Your task to perform on an android device: change keyboard looks Image 0: 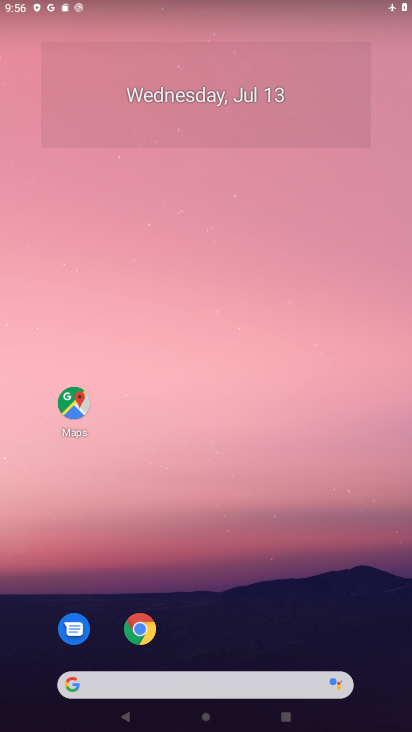
Step 0: drag from (287, 613) to (277, 209)
Your task to perform on an android device: change keyboard looks Image 1: 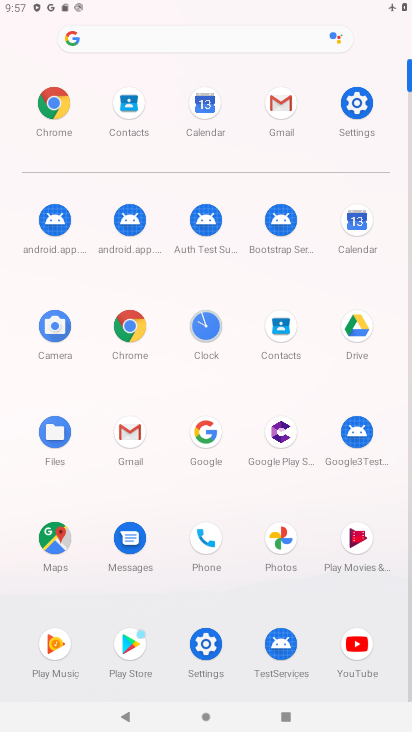
Step 1: click (205, 653)
Your task to perform on an android device: change keyboard looks Image 2: 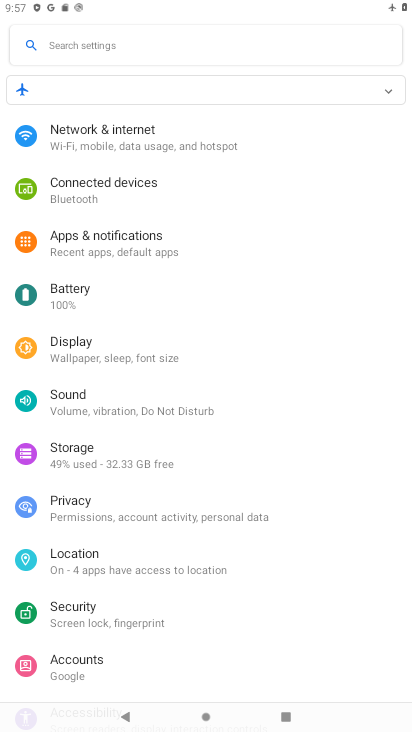
Step 2: drag from (185, 549) to (196, 352)
Your task to perform on an android device: change keyboard looks Image 3: 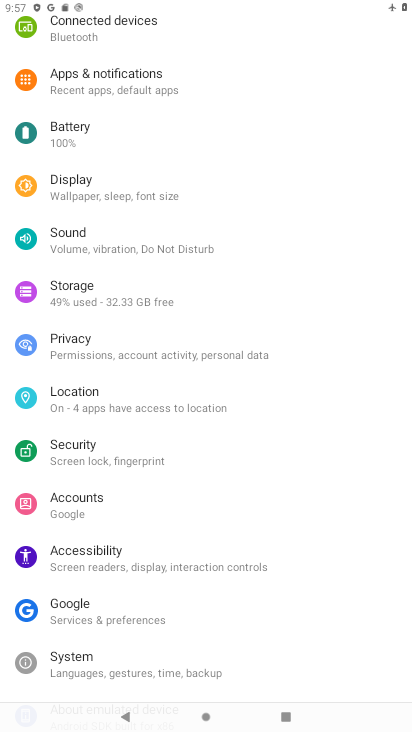
Step 3: click (79, 650)
Your task to perform on an android device: change keyboard looks Image 4: 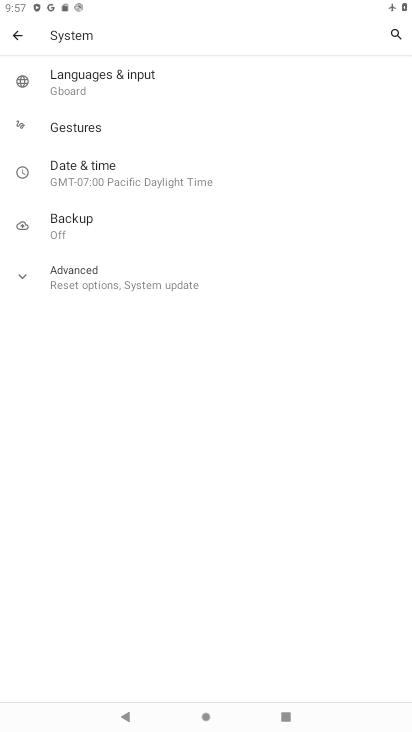
Step 4: click (108, 97)
Your task to perform on an android device: change keyboard looks Image 5: 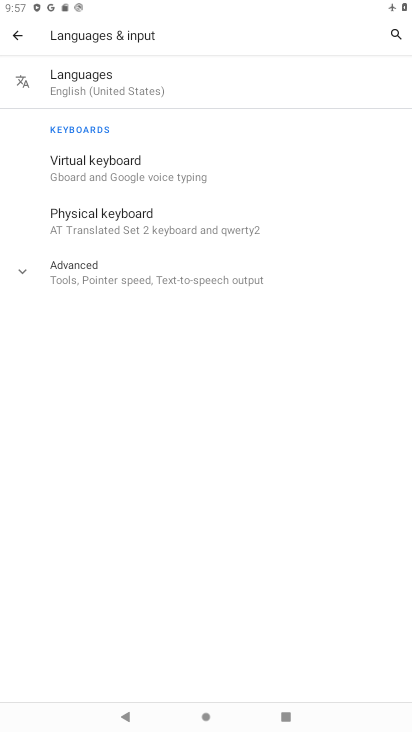
Step 5: click (136, 168)
Your task to perform on an android device: change keyboard looks Image 6: 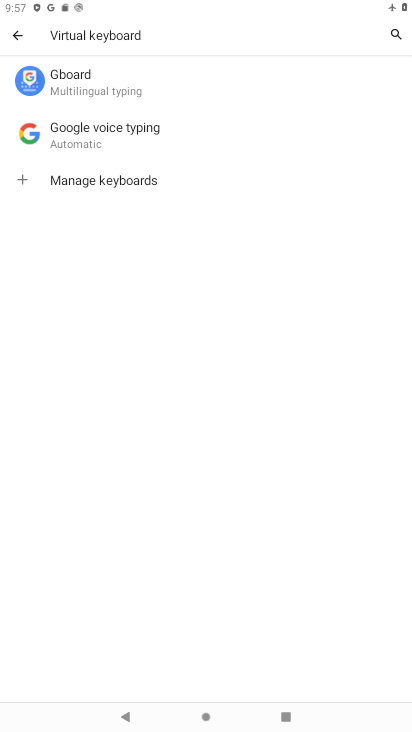
Step 6: click (114, 98)
Your task to perform on an android device: change keyboard looks Image 7: 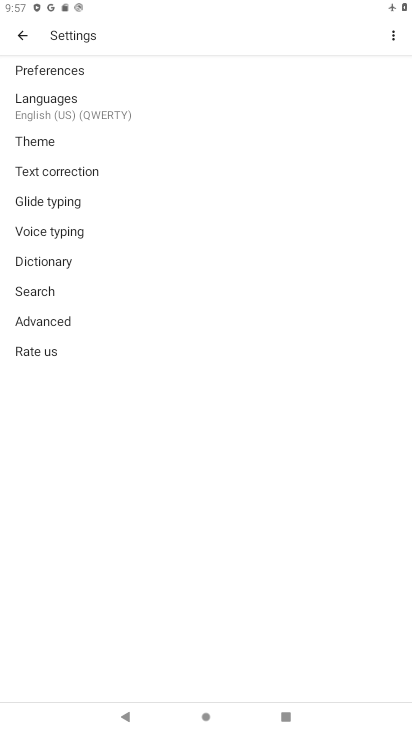
Step 7: click (69, 109)
Your task to perform on an android device: change keyboard looks Image 8: 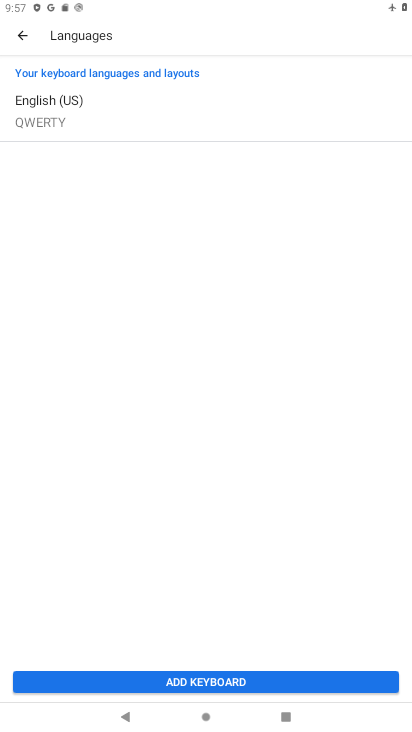
Step 8: task complete